Your task to perform on an android device: Show me productivity apps on the Play Store Image 0: 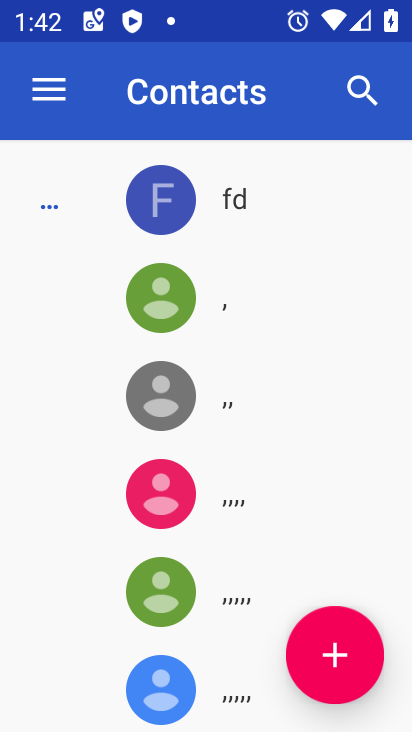
Step 0: press back button
Your task to perform on an android device: Show me productivity apps on the Play Store Image 1: 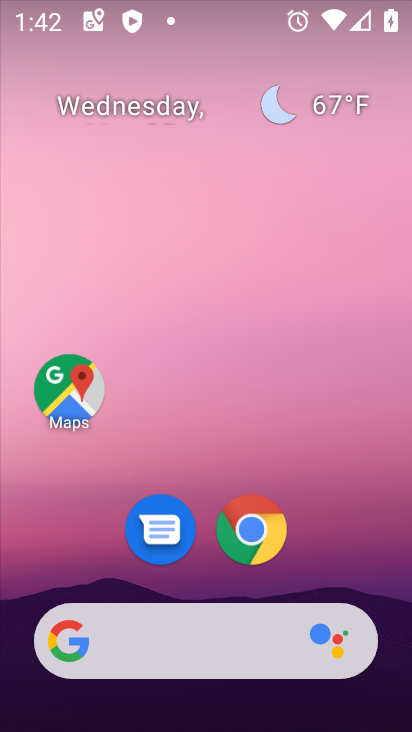
Step 1: drag from (324, 544) to (198, 182)
Your task to perform on an android device: Show me productivity apps on the Play Store Image 2: 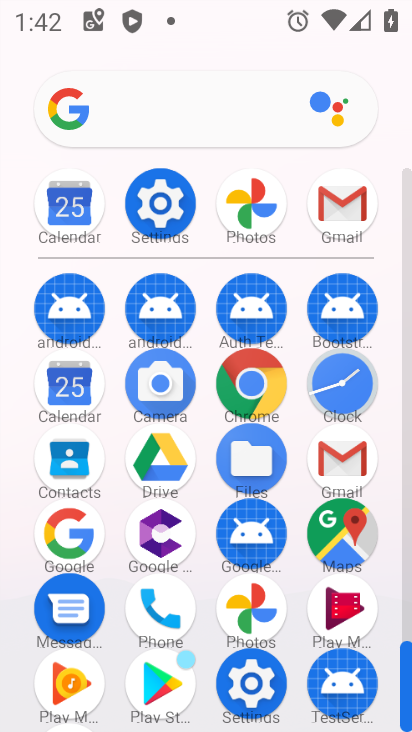
Step 2: drag from (208, 503) to (227, 363)
Your task to perform on an android device: Show me productivity apps on the Play Store Image 3: 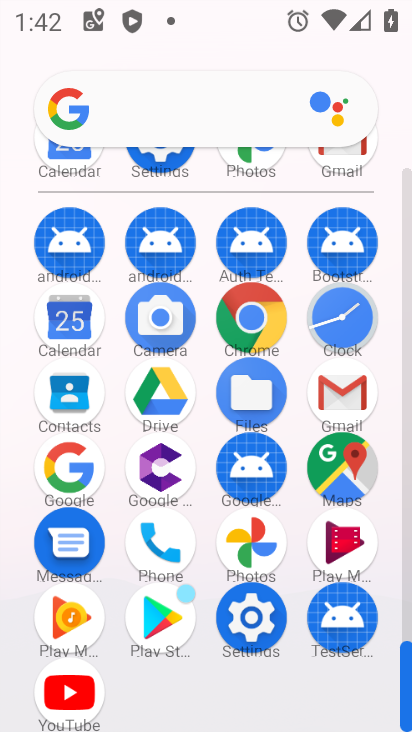
Step 3: click (163, 616)
Your task to perform on an android device: Show me productivity apps on the Play Store Image 4: 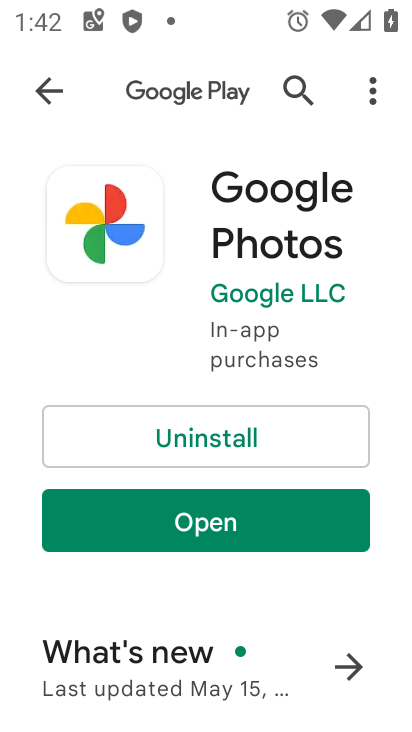
Step 4: press back button
Your task to perform on an android device: Show me productivity apps on the Play Store Image 5: 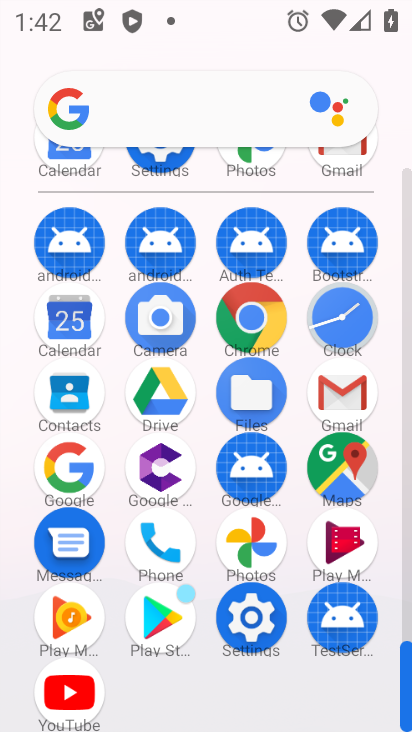
Step 5: click (163, 616)
Your task to perform on an android device: Show me productivity apps on the Play Store Image 6: 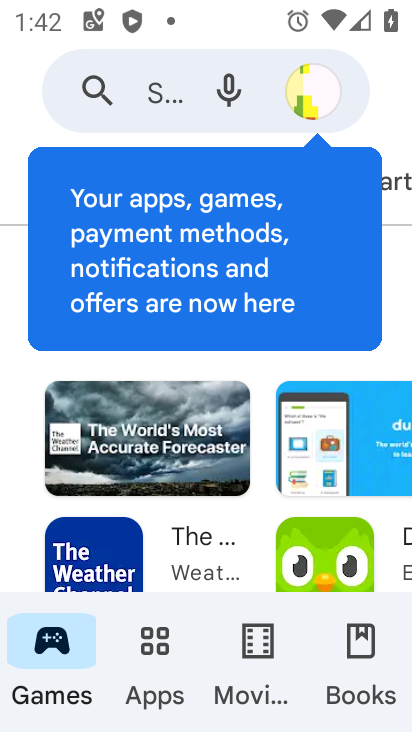
Step 6: click (163, 647)
Your task to perform on an android device: Show me productivity apps on the Play Store Image 7: 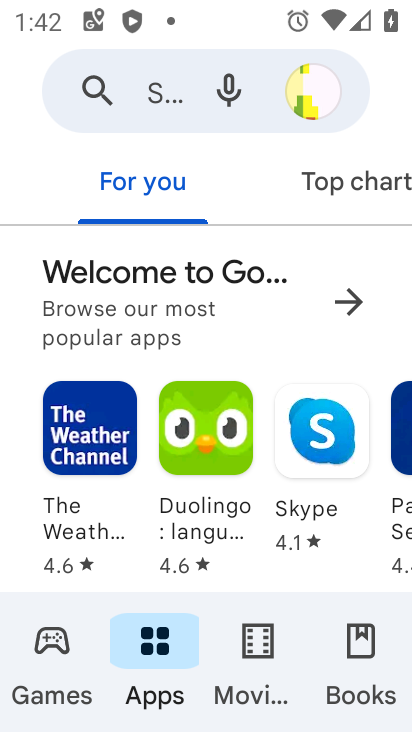
Step 7: drag from (291, 183) to (64, 229)
Your task to perform on an android device: Show me productivity apps on the Play Store Image 8: 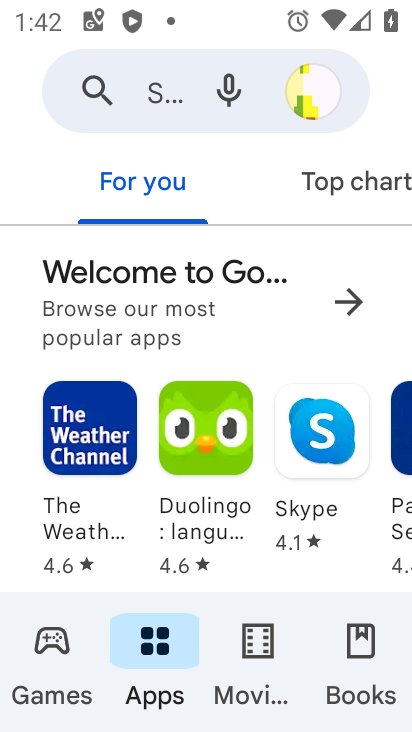
Step 8: drag from (362, 183) to (12, 217)
Your task to perform on an android device: Show me productivity apps on the Play Store Image 9: 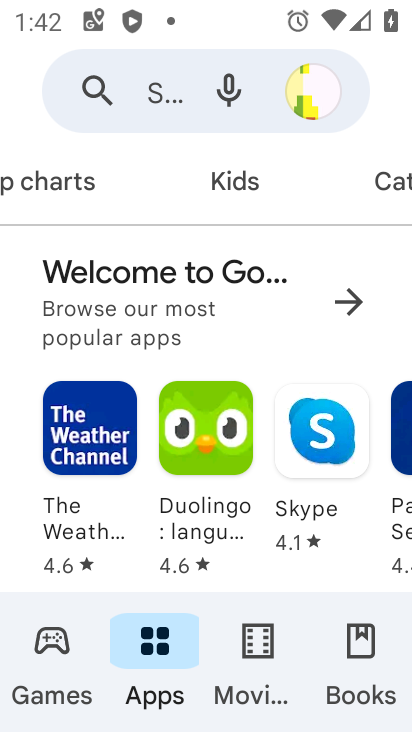
Step 9: drag from (393, 176) to (90, 219)
Your task to perform on an android device: Show me productivity apps on the Play Store Image 10: 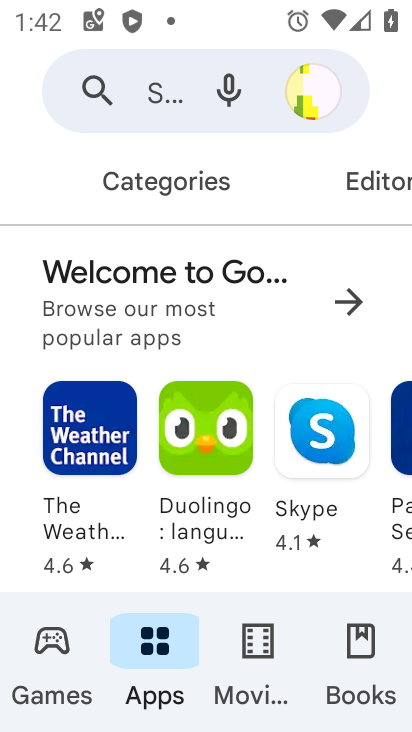
Step 10: click (153, 176)
Your task to perform on an android device: Show me productivity apps on the Play Store Image 11: 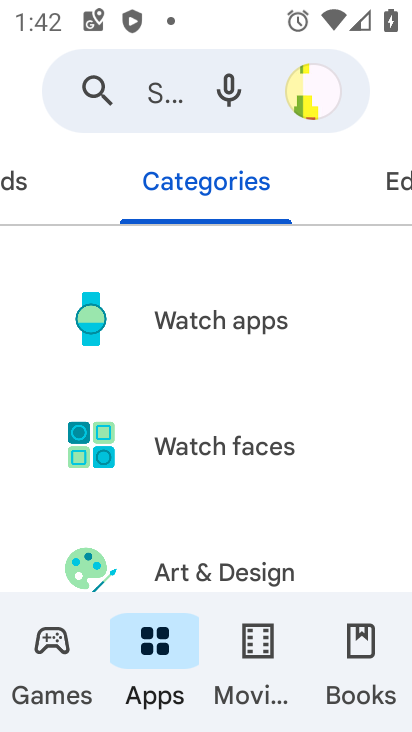
Step 11: drag from (220, 482) to (218, 322)
Your task to perform on an android device: Show me productivity apps on the Play Store Image 12: 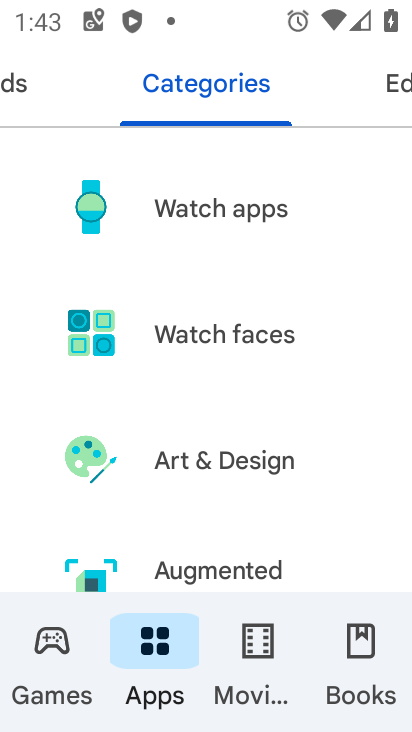
Step 12: drag from (202, 418) to (250, 288)
Your task to perform on an android device: Show me productivity apps on the Play Store Image 13: 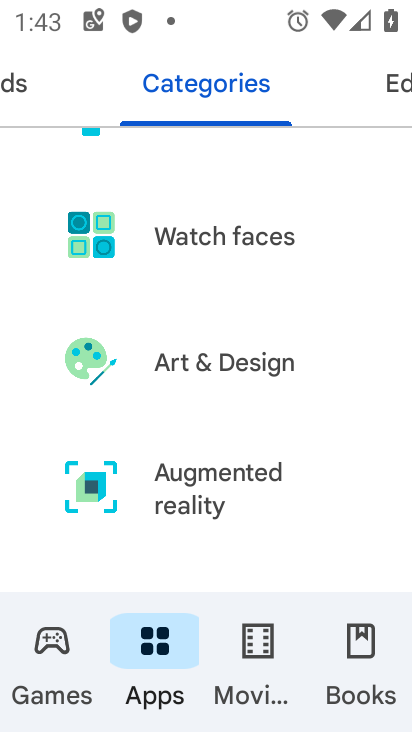
Step 13: drag from (196, 447) to (254, 313)
Your task to perform on an android device: Show me productivity apps on the Play Store Image 14: 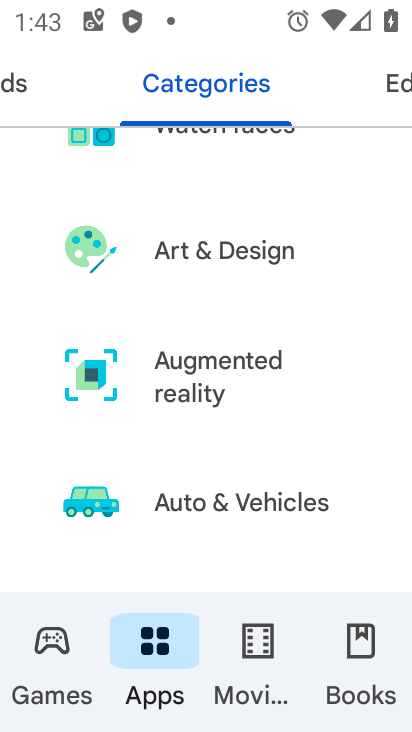
Step 14: drag from (193, 462) to (241, 281)
Your task to perform on an android device: Show me productivity apps on the Play Store Image 15: 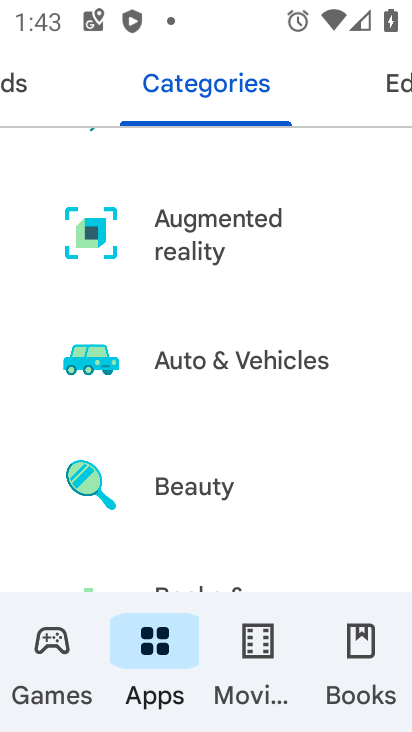
Step 15: drag from (198, 432) to (257, 263)
Your task to perform on an android device: Show me productivity apps on the Play Store Image 16: 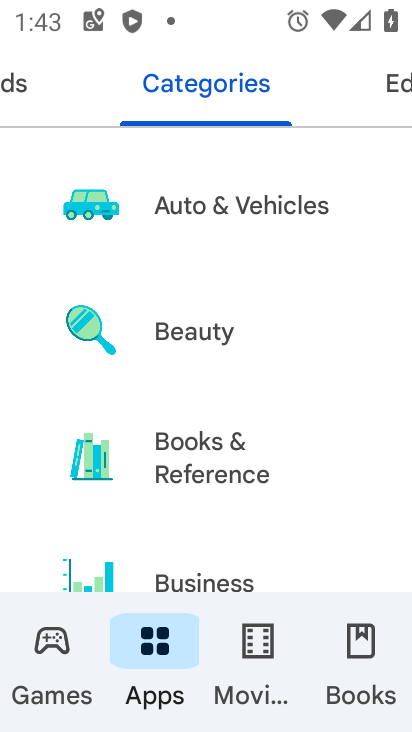
Step 16: drag from (209, 397) to (242, 226)
Your task to perform on an android device: Show me productivity apps on the Play Store Image 17: 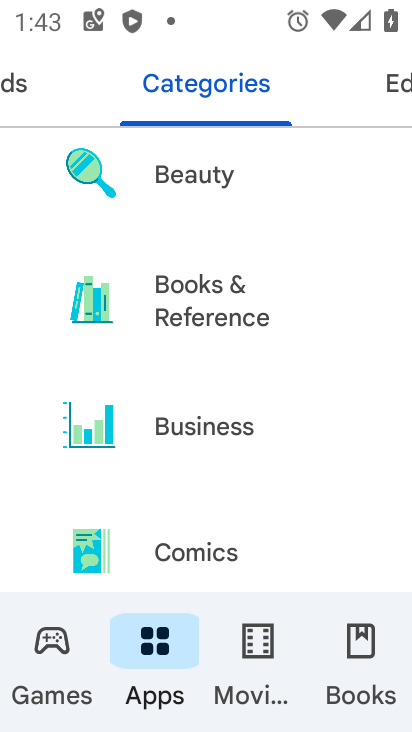
Step 17: drag from (207, 368) to (251, 231)
Your task to perform on an android device: Show me productivity apps on the Play Store Image 18: 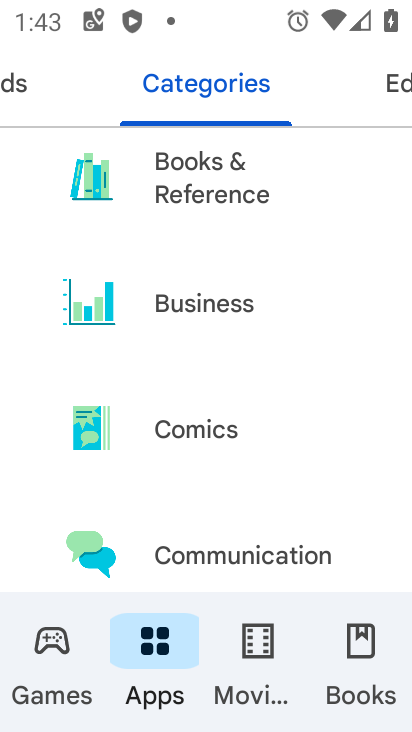
Step 18: drag from (185, 382) to (247, 232)
Your task to perform on an android device: Show me productivity apps on the Play Store Image 19: 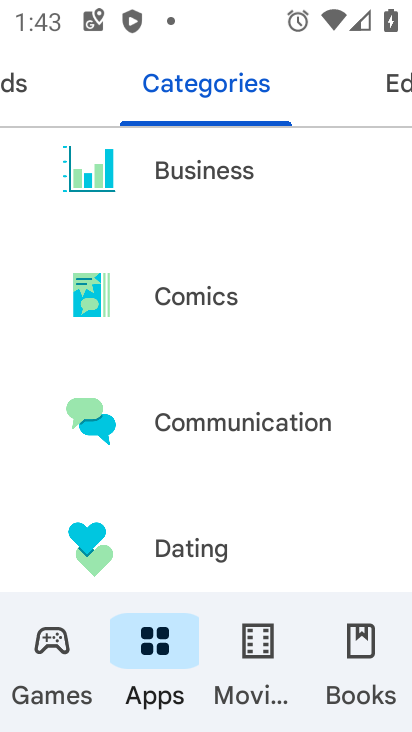
Step 19: drag from (189, 483) to (248, 298)
Your task to perform on an android device: Show me productivity apps on the Play Store Image 20: 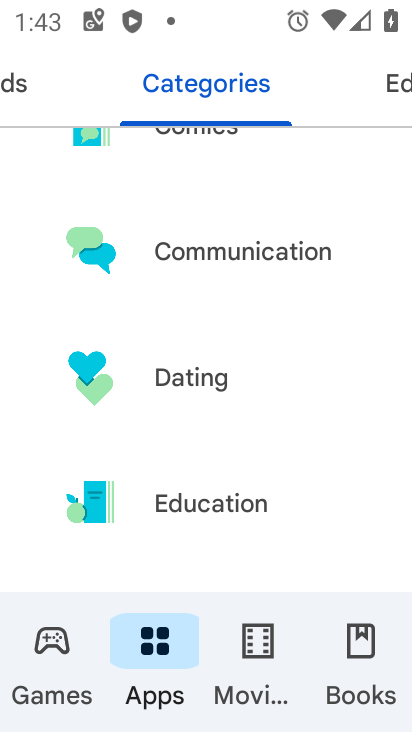
Step 20: drag from (187, 449) to (253, 293)
Your task to perform on an android device: Show me productivity apps on the Play Store Image 21: 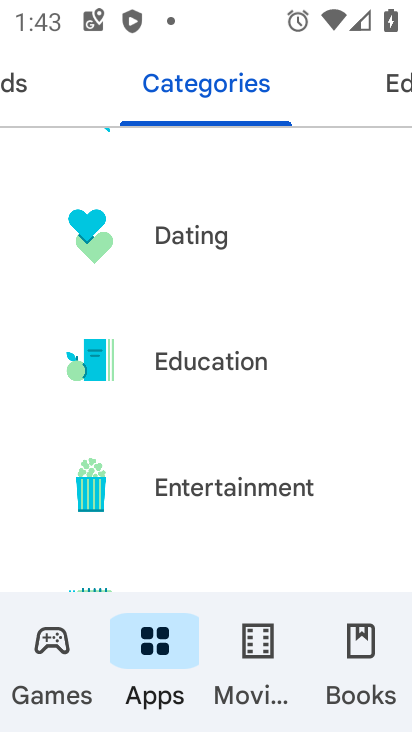
Step 21: drag from (197, 441) to (239, 302)
Your task to perform on an android device: Show me productivity apps on the Play Store Image 22: 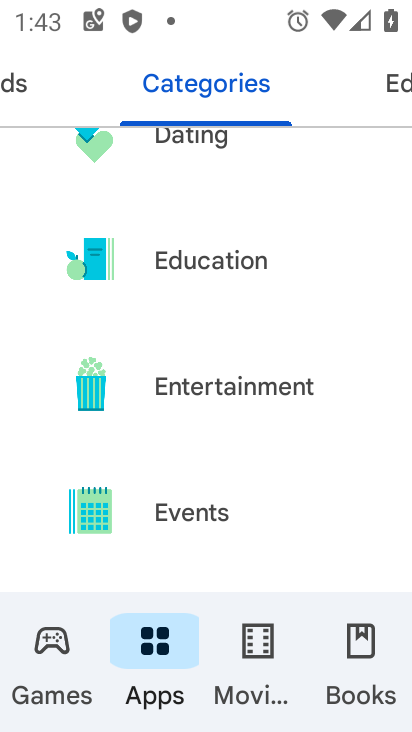
Step 22: drag from (193, 468) to (223, 314)
Your task to perform on an android device: Show me productivity apps on the Play Store Image 23: 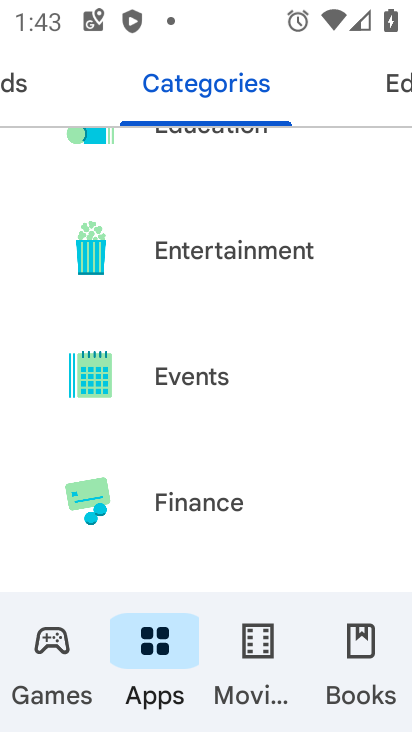
Step 23: drag from (191, 446) to (262, 303)
Your task to perform on an android device: Show me productivity apps on the Play Store Image 24: 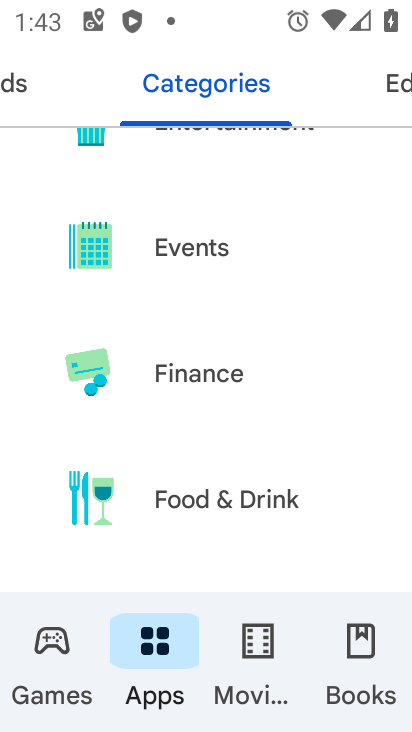
Step 24: drag from (201, 442) to (264, 321)
Your task to perform on an android device: Show me productivity apps on the Play Store Image 25: 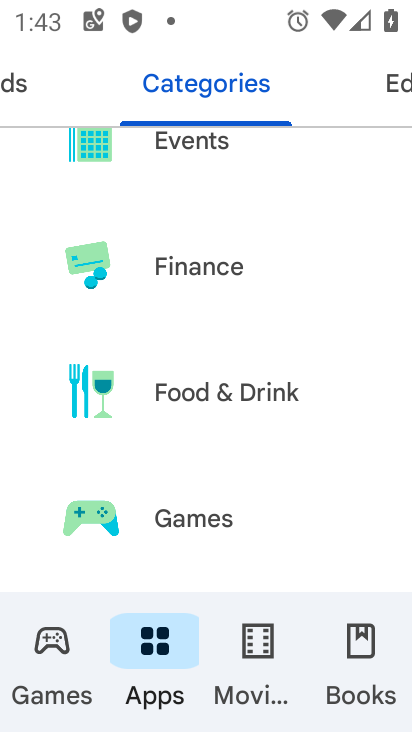
Step 25: drag from (185, 475) to (244, 326)
Your task to perform on an android device: Show me productivity apps on the Play Store Image 26: 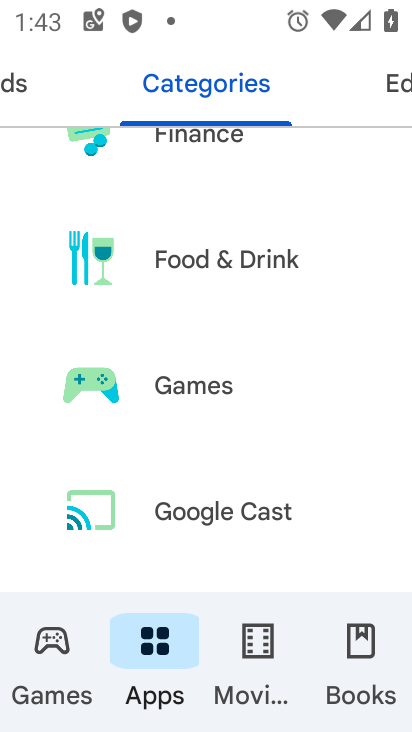
Step 26: drag from (172, 445) to (221, 308)
Your task to perform on an android device: Show me productivity apps on the Play Store Image 27: 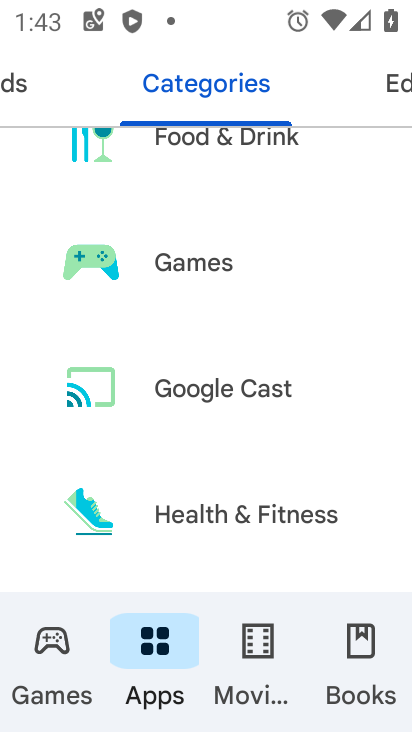
Step 27: drag from (192, 454) to (251, 329)
Your task to perform on an android device: Show me productivity apps on the Play Store Image 28: 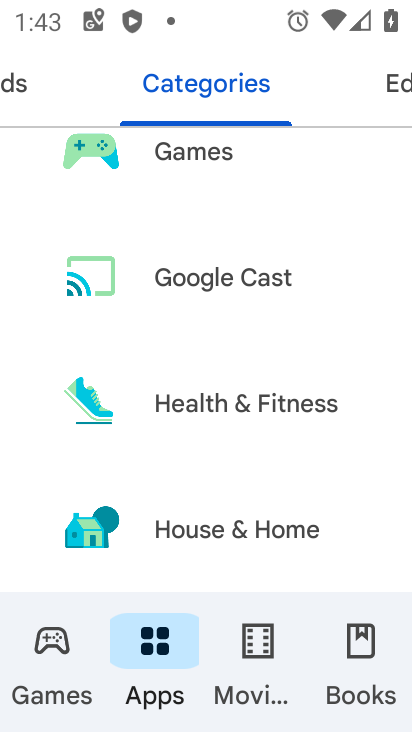
Step 28: drag from (203, 459) to (238, 310)
Your task to perform on an android device: Show me productivity apps on the Play Store Image 29: 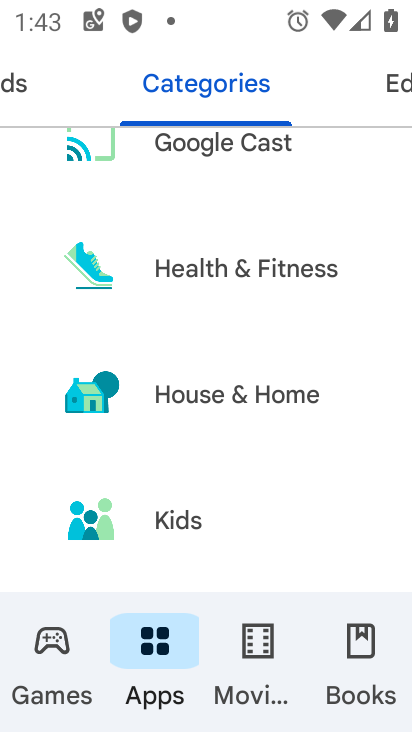
Step 29: drag from (208, 464) to (242, 320)
Your task to perform on an android device: Show me productivity apps on the Play Store Image 30: 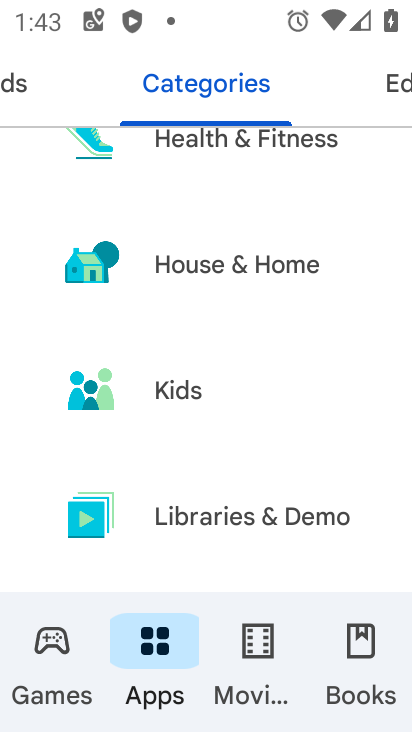
Step 30: drag from (189, 460) to (230, 337)
Your task to perform on an android device: Show me productivity apps on the Play Store Image 31: 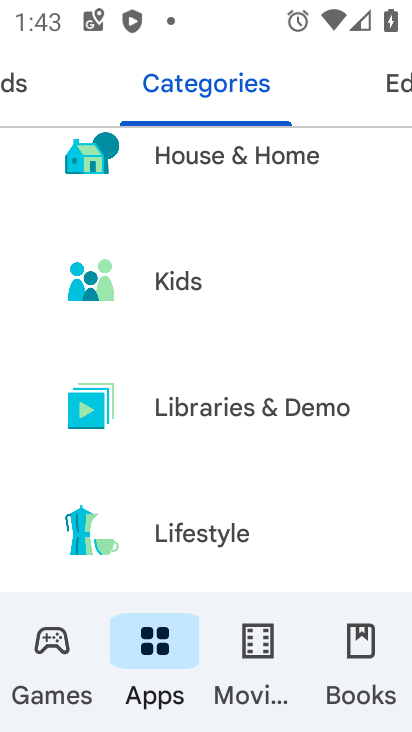
Step 31: drag from (179, 466) to (239, 346)
Your task to perform on an android device: Show me productivity apps on the Play Store Image 32: 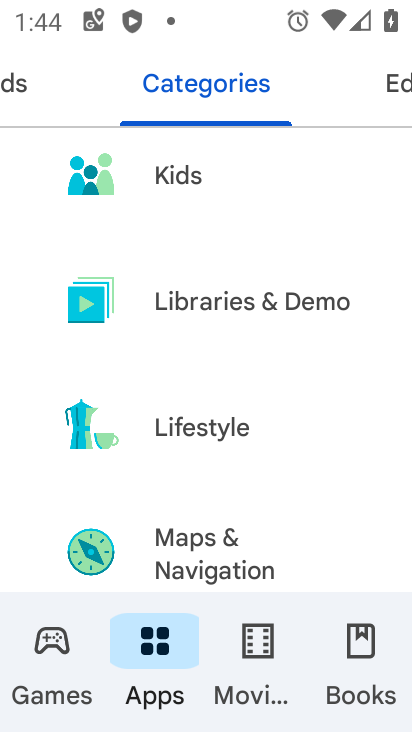
Step 32: drag from (185, 479) to (247, 357)
Your task to perform on an android device: Show me productivity apps on the Play Store Image 33: 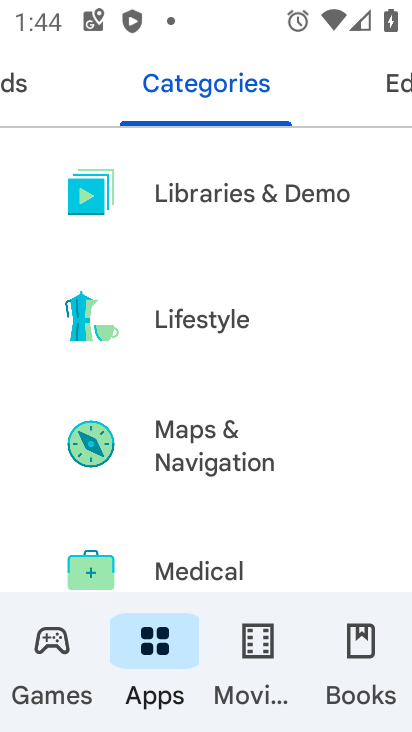
Step 33: drag from (182, 380) to (234, 262)
Your task to perform on an android device: Show me productivity apps on the Play Store Image 34: 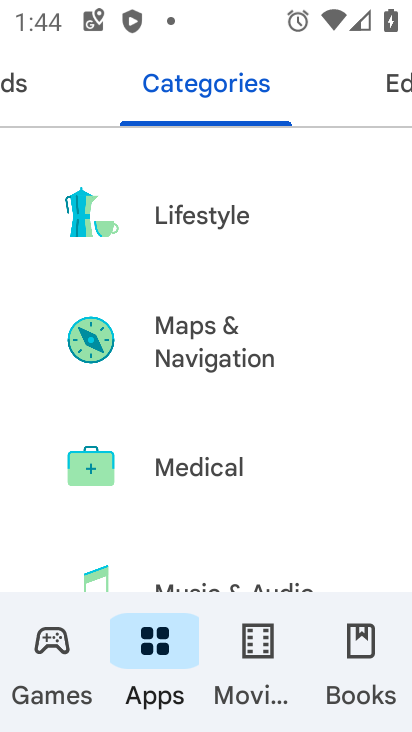
Step 34: drag from (191, 424) to (238, 290)
Your task to perform on an android device: Show me productivity apps on the Play Store Image 35: 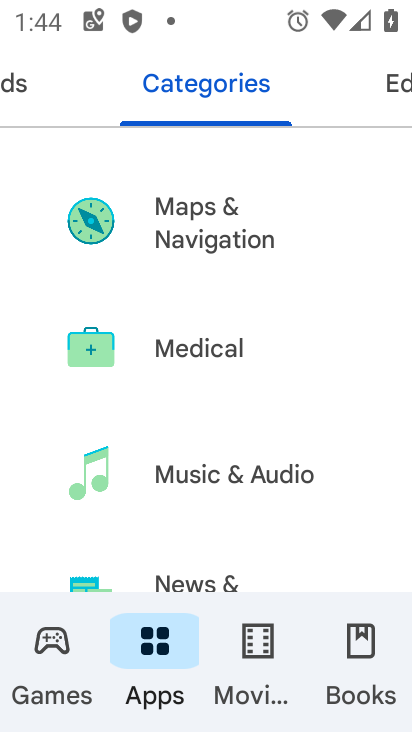
Step 35: drag from (187, 432) to (248, 316)
Your task to perform on an android device: Show me productivity apps on the Play Store Image 36: 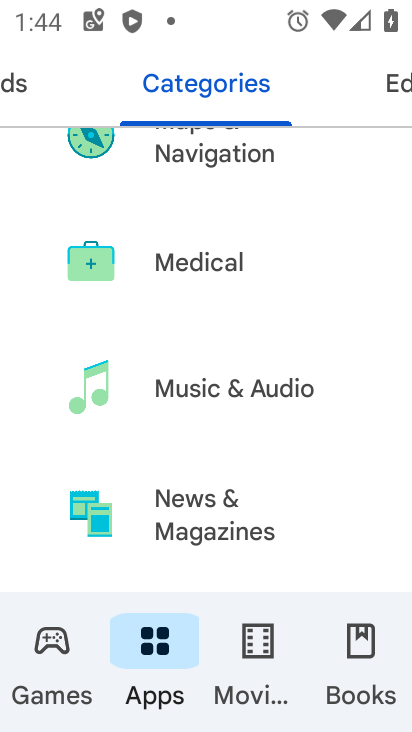
Step 36: drag from (187, 444) to (232, 338)
Your task to perform on an android device: Show me productivity apps on the Play Store Image 37: 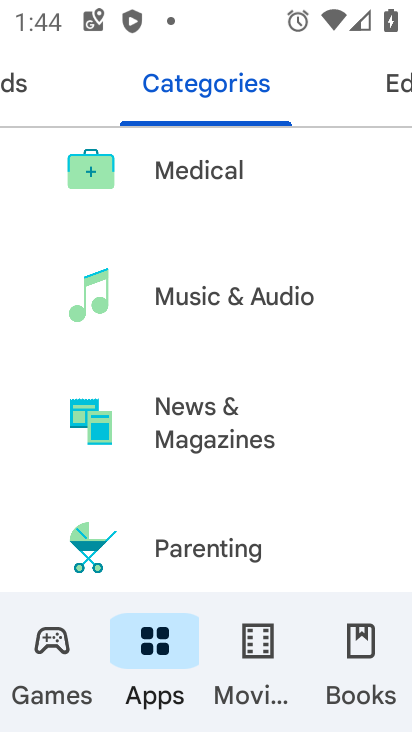
Step 37: drag from (188, 490) to (256, 355)
Your task to perform on an android device: Show me productivity apps on the Play Store Image 38: 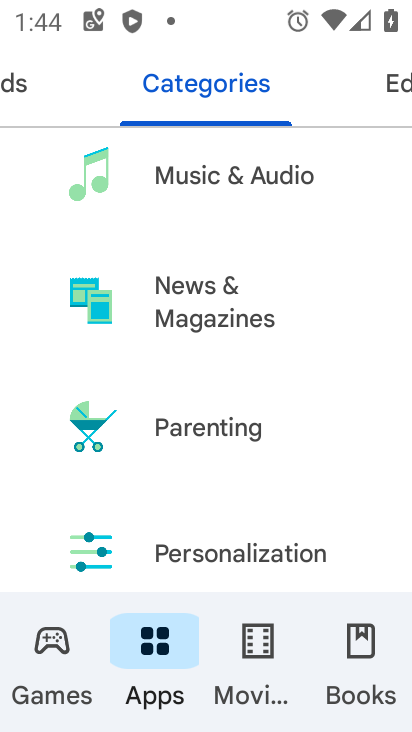
Step 38: drag from (191, 499) to (267, 377)
Your task to perform on an android device: Show me productivity apps on the Play Store Image 39: 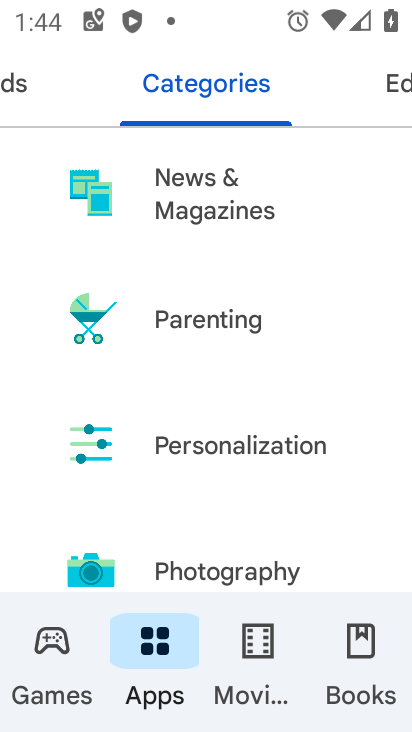
Step 39: drag from (209, 534) to (305, 376)
Your task to perform on an android device: Show me productivity apps on the Play Store Image 40: 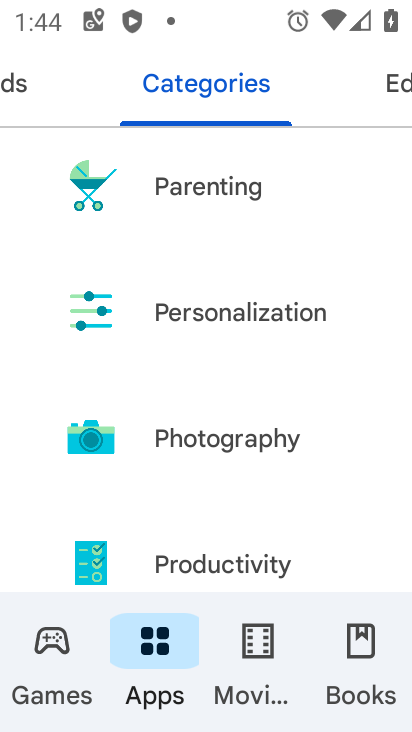
Step 40: drag from (183, 511) to (274, 406)
Your task to perform on an android device: Show me productivity apps on the Play Store Image 41: 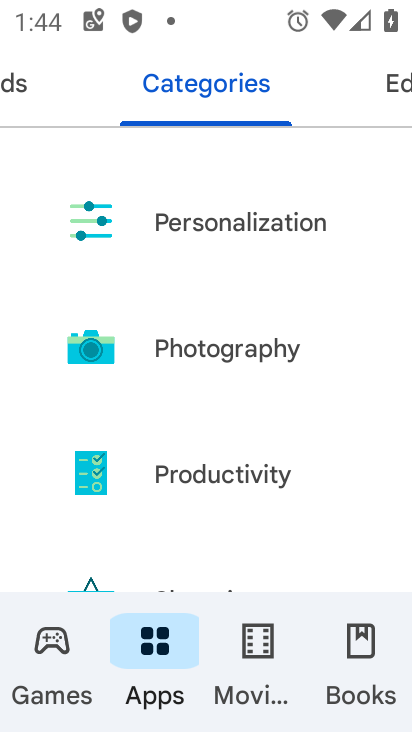
Step 41: click (262, 471)
Your task to perform on an android device: Show me productivity apps on the Play Store Image 42: 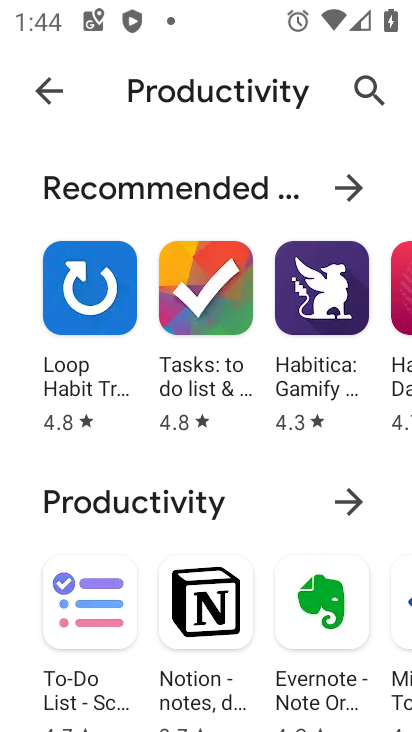
Step 42: task complete